Your task to perform on an android device: Show the shopping cart on newegg. Image 0: 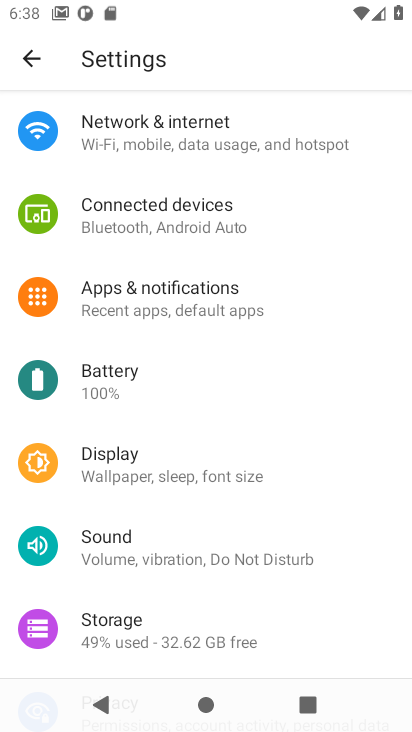
Step 0: press home button
Your task to perform on an android device: Show the shopping cart on newegg. Image 1: 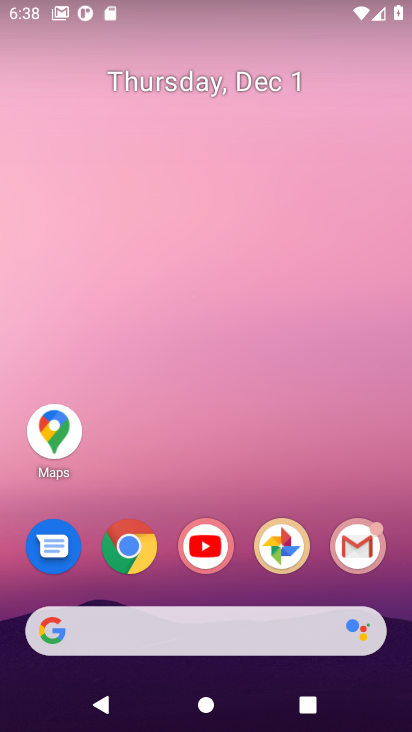
Step 1: click (137, 540)
Your task to perform on an android device: Show the shopping cart on newegg. Image 2: 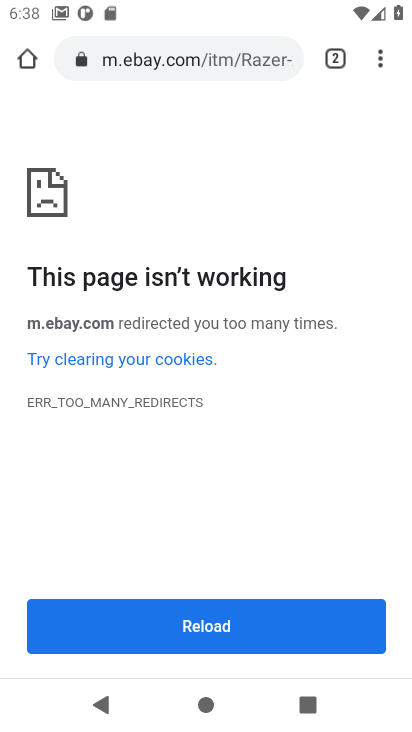
Step 2: click (167, 60)
Your task to perform on an android device: Show the shopping cart on newegg. Image 3: 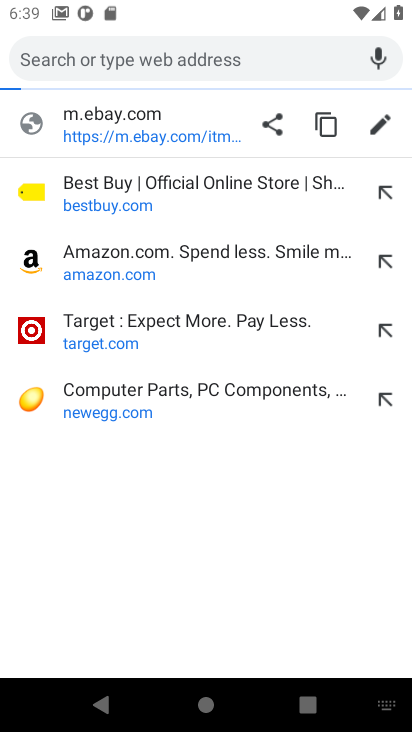
Step 3: click (95, 393)
Your task to perform on an android device: Show the shopping cart on newegg. Image 4: 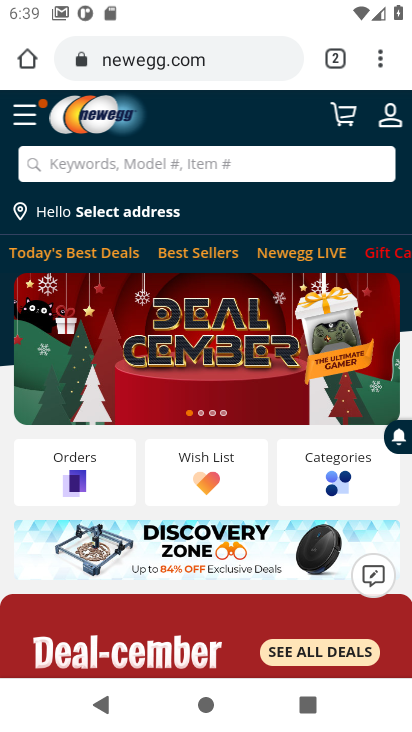
Step 4: click (348, 121)
Your task to perform on an android device: Show the shopping cart on newegg. Image 5: 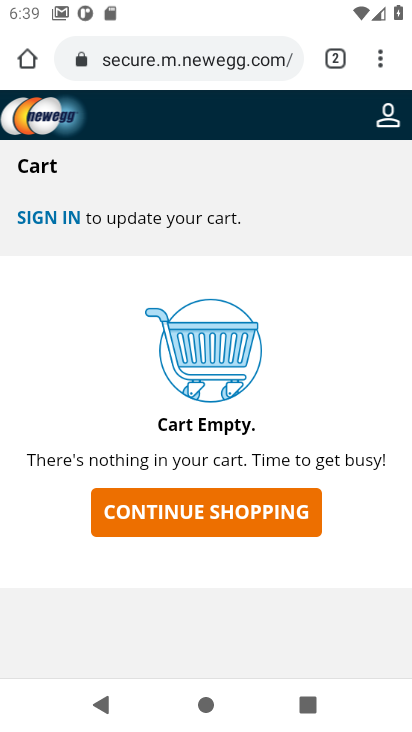
Step 5: task complete